Your task to perform on an android device: toggle airplane mode Image 0: 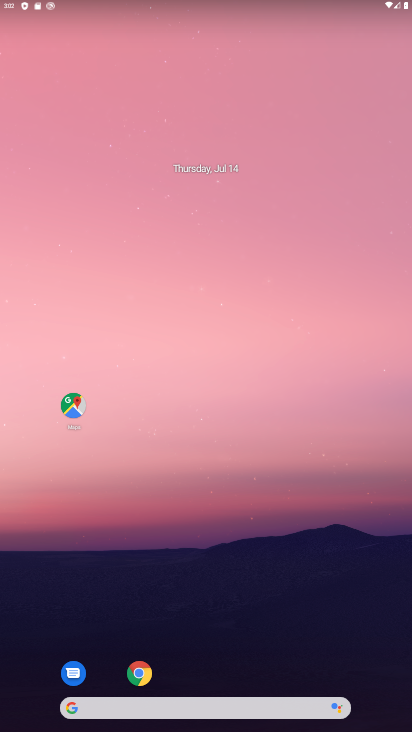
Step 0: drag from (199, 661) to (157, 159)
Your task to perform on an android device: toggle airplane mode Image 1: 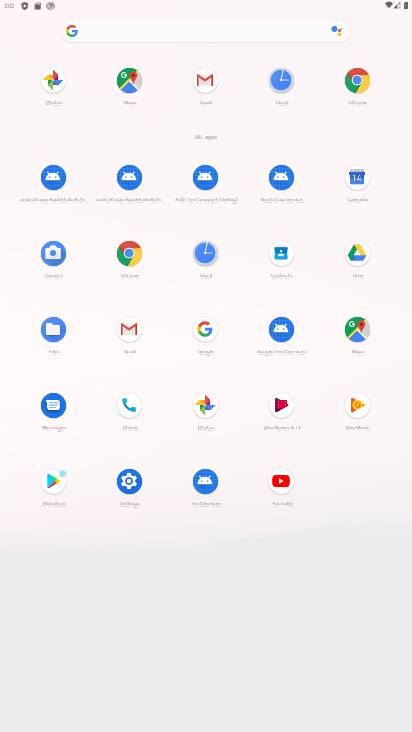
Step 1: click (132, 483)
Your task to perform on an android device: toggle airplane mode Image 2: 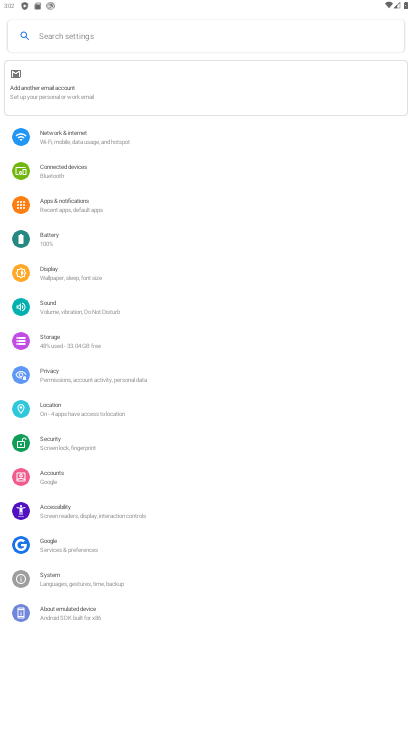
Step 2: click (69, 138)
Your task to perform on an android device: toggle airplane mode Image 3: 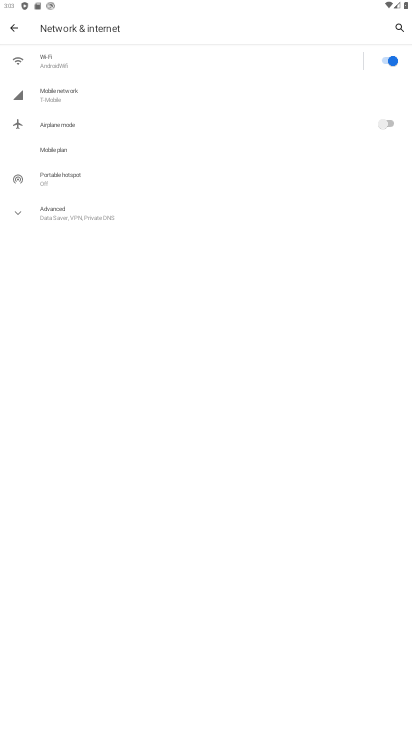
Step 3: click (391, 126)
Your task to perform on an android device: toggle airplane mode Image 4: 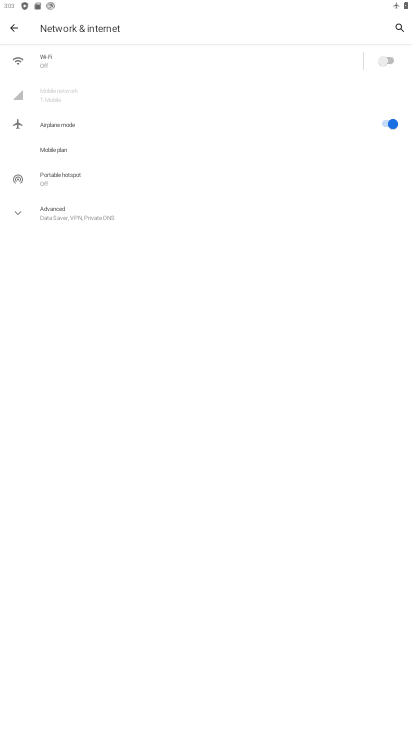
Step 4: task complete